Your task to perform on an android device: Search for Mexican restaurants on Maps Image 0: 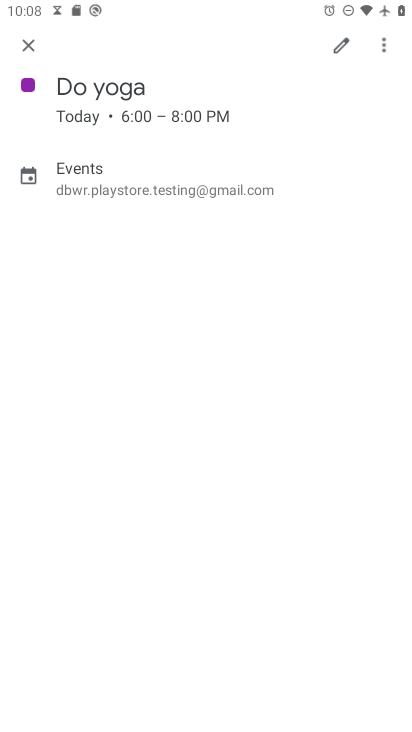
Step 0: press home button
Your task to perform on an android device: Search for Mexican restaurants on Maps Image 1: 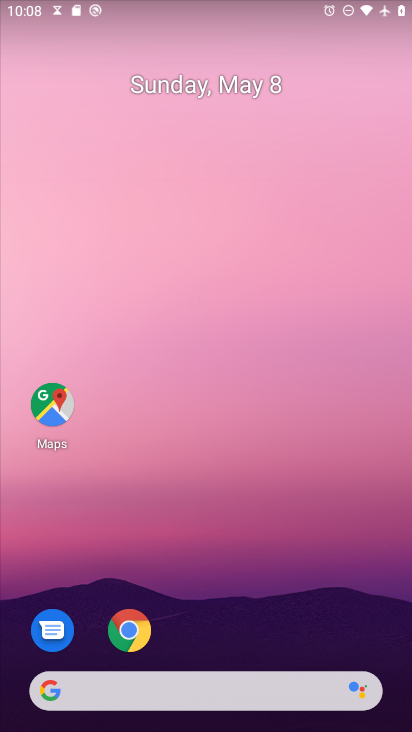
Step 1: drag from (156, 685) to (301, 11)
Your task to perform on an android device: Search for Mexican restaurants on Maps Image 2: 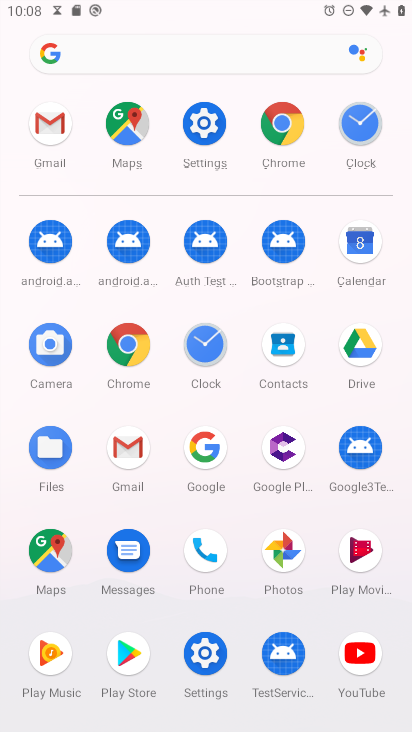
Step 2: click (125, 135)
Your task to perform on an android device: Search for Mexican restaurants on Maps Image 3: 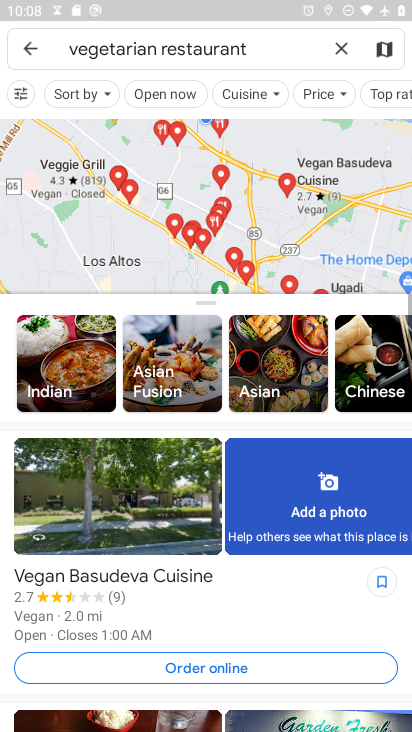
Step 3: click (343, 50)
Your task to perform on an android device: Search for Mexican restaurants on Maps Image 4: 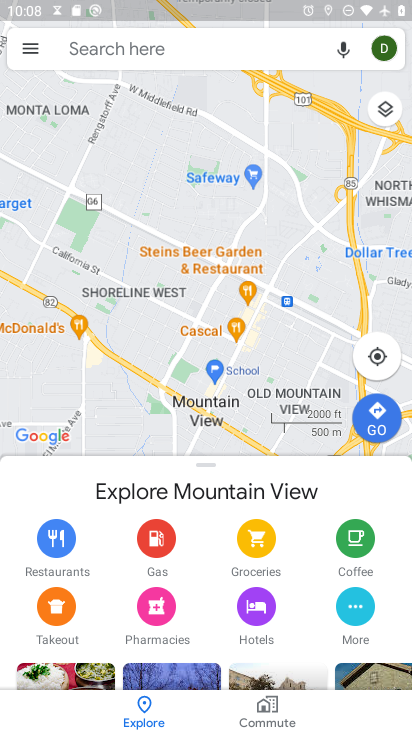
Step 4: click (161, 48)
Your task to perform on an android device: Search for Mexican restaurants on Maps Image 5: 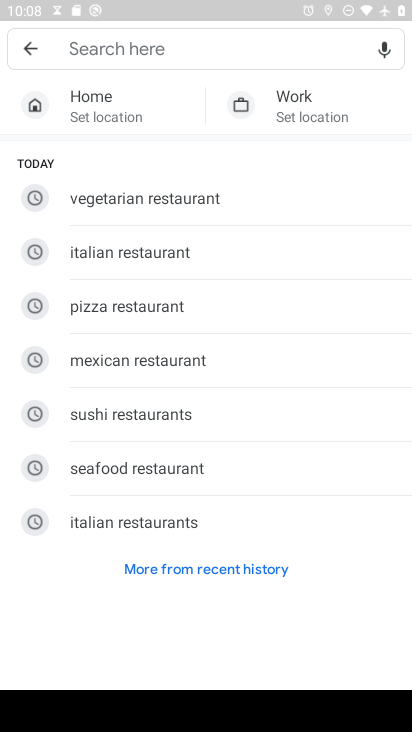
Step 5: click (159, 363)
Your task to perform on an android device: Search for Mexican restaurants on Maps Image 6: 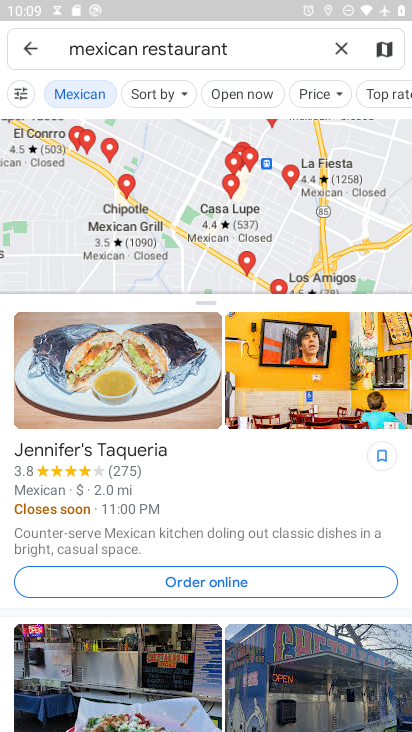
Step 6: task complete